Your task to perform on an android device: Search for "usb-c" on newegg.com, select the first entry, add it to the cart, then select checkout. Image 0: 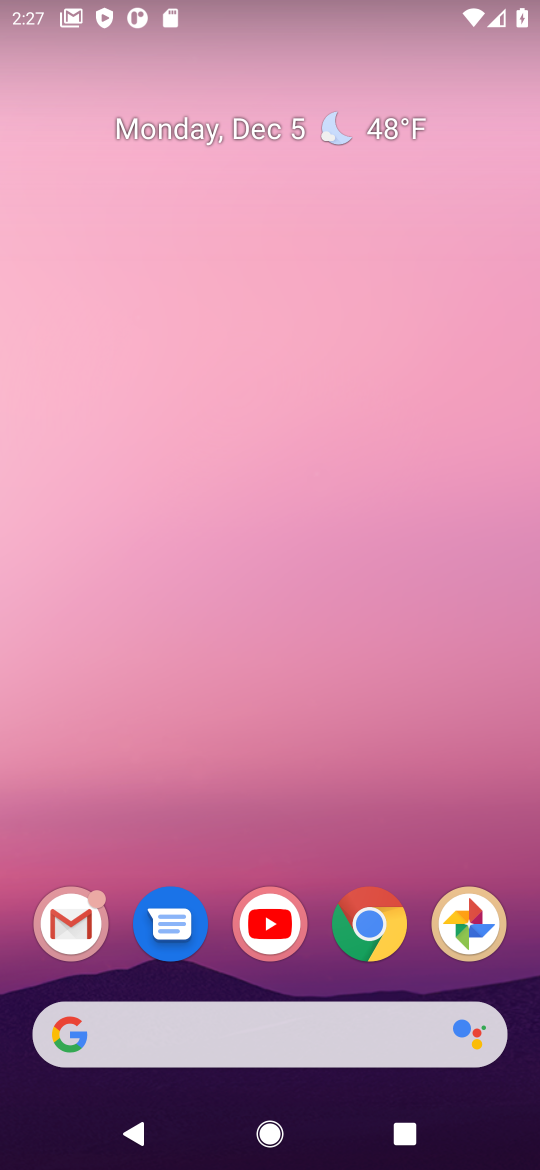
Step 0: click (204, 1016)
Your task to perform on an android device: Search for "usb-c" on newegg.com, select the first entry, add it to the cart, then select checkout. Image 1: 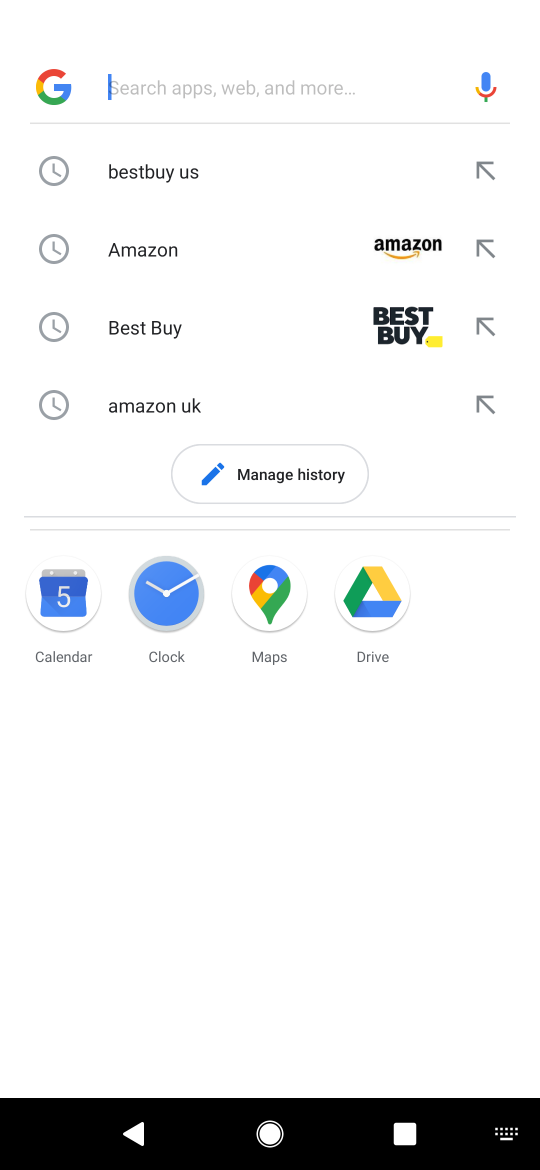
Step 1: type "newegg"
Your task to perform on an android device: Search for "usb-c" on newegg.com, select the first entry, add it to the cart, then select checkout. Image 2: 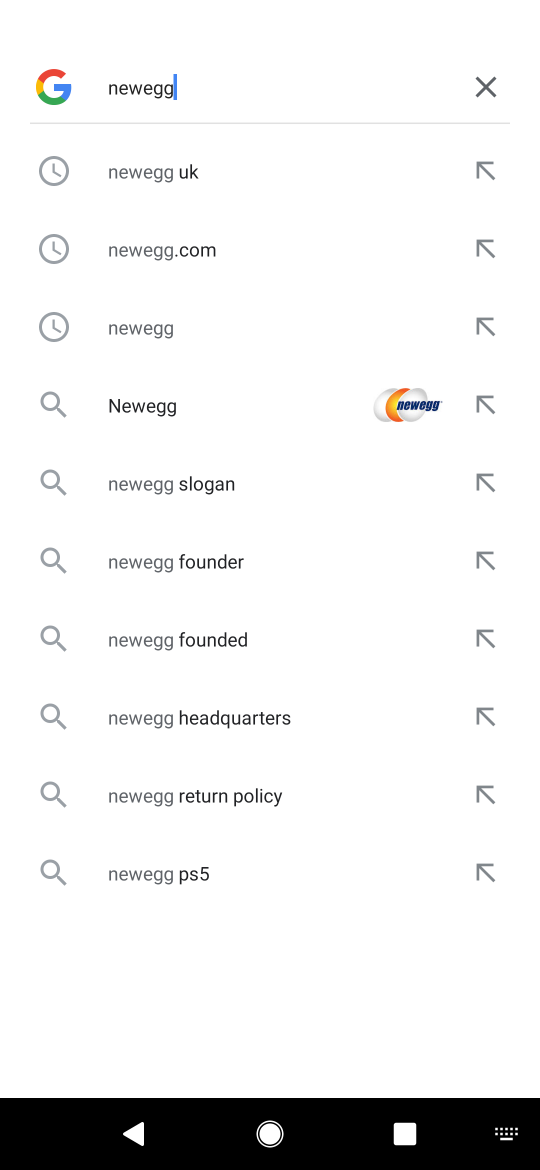
Step 2: click (168, 267)
Your task to perform on an android device: Search for "usb-c" on newegg.com, select the first entry, add it to the cart, then select checkout. Image 3: 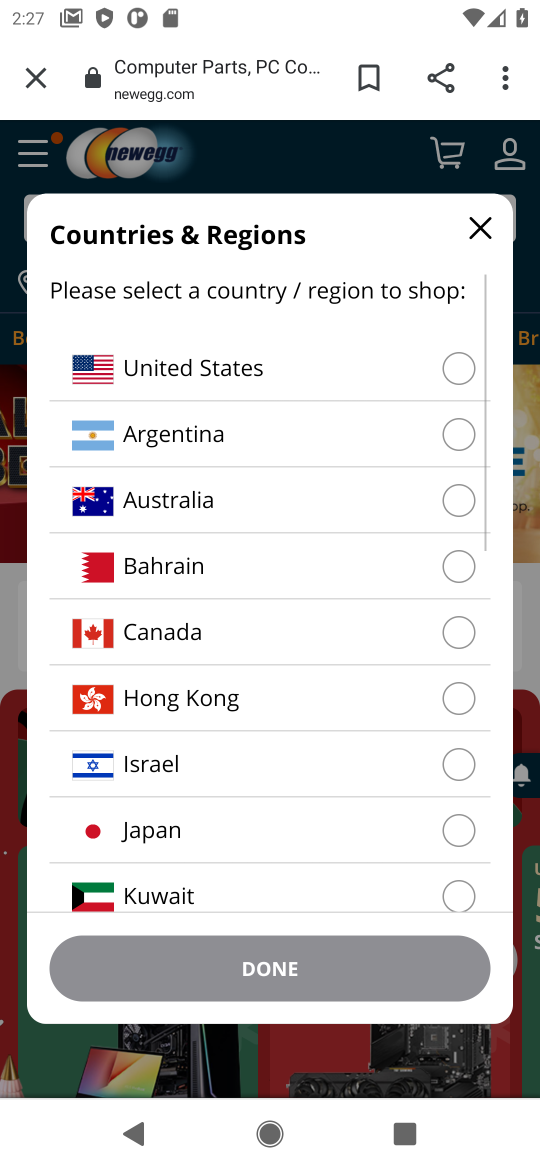
Step 3: click (160, 384)
Your task to perform on an android device: Search for "usb-c" on newegg.com, select the first entry, add it to the cart, then select checkout. Image 4: 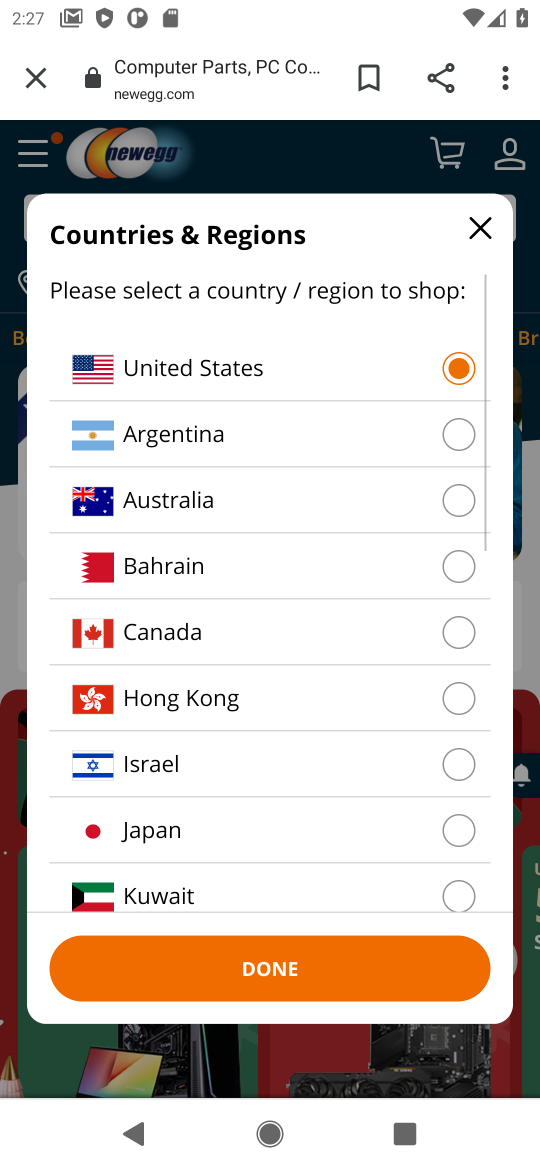
Step 4: click (257, 979)
Your task to perform on an android device: Search for "usb-c" on newegg.com, select the first entry, add it to the cart, then select checkout. Image 5: 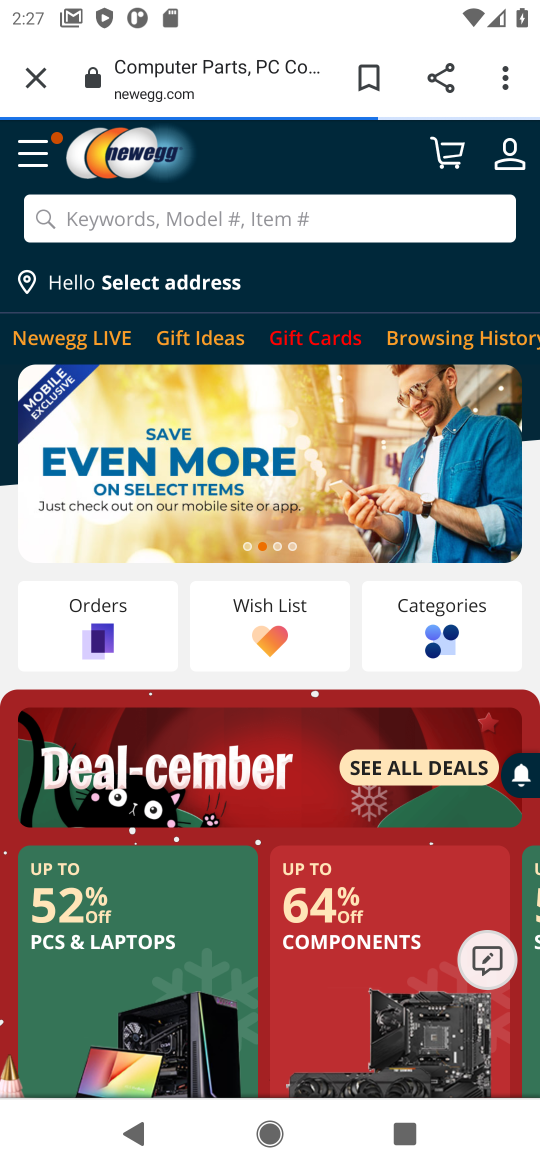
Step 5: click (354, 209)
Your task to perform on an android device: Search for "usb-c" on newegg.com, select the first entry, add it to the cart, then select checkout. Image 6: 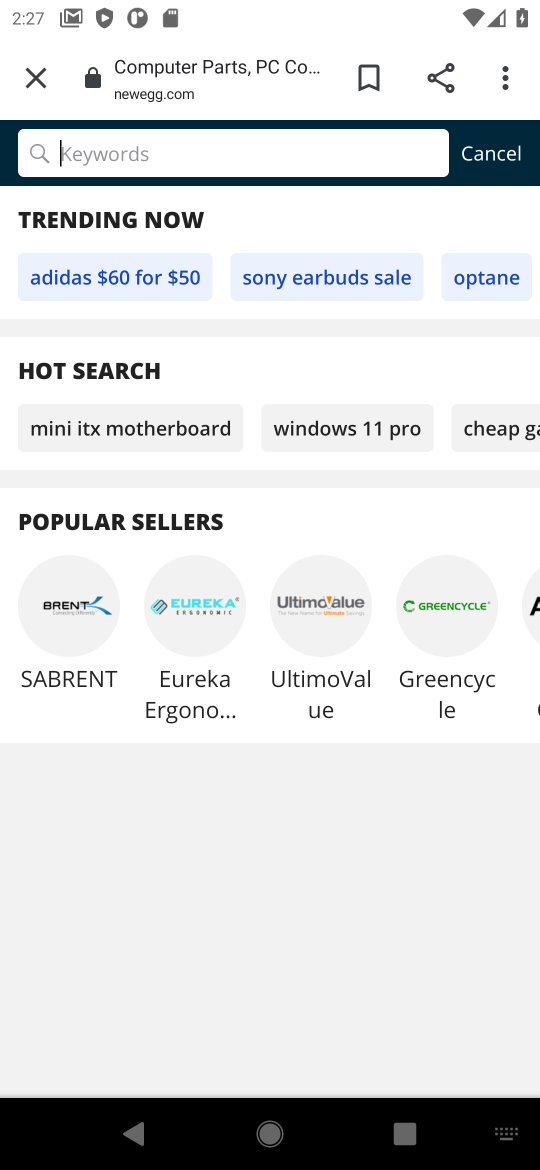
Step 6: type "usb-c"
Your task to perform on an android device: Search for "usb-c" on newegg.com, select the first entry, add it to the cart, then select checkout. Image 7: 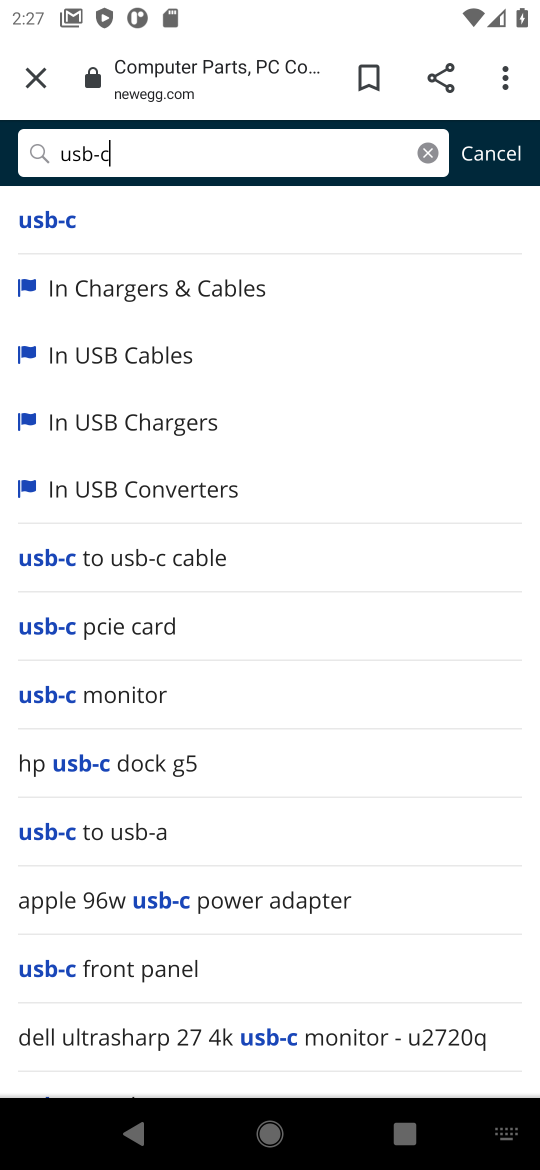
Step 7: click (63, 228)
Your task to perform on an android device: Search for "usb-c" on newegg.com, select the first entry, add it to the cart, then select checkout. Image 8: 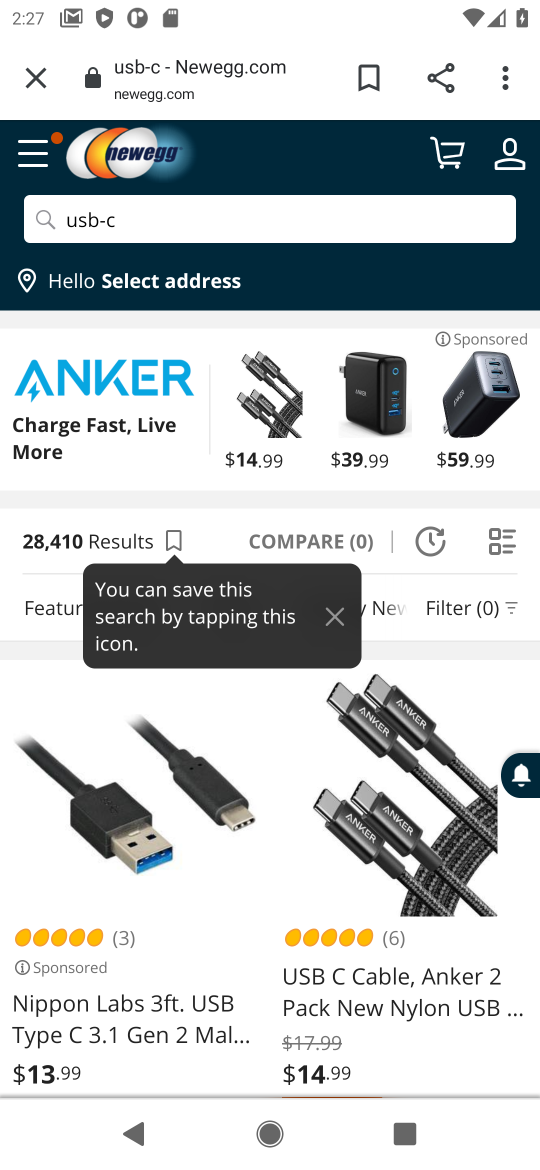
Step 8: task complete